Your task to perform on an android device: Open display settings Image 0: 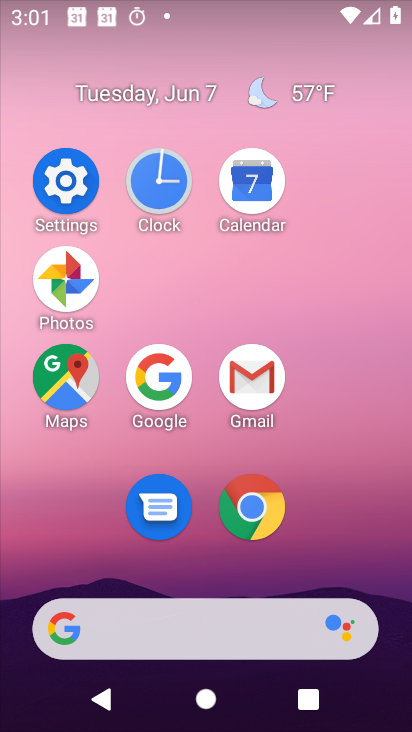
Step 0: click (86, 177)
Your task to perform on an android device: Open display settings Image 1: 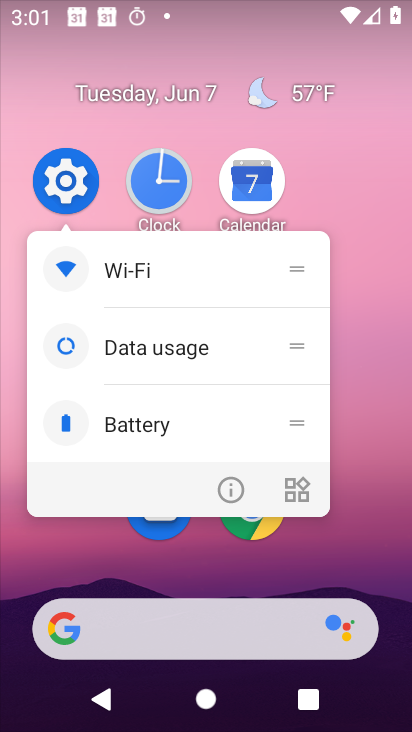
Step 1: click (56, 183)
Your task to perform on an android device: Open display settings Image 2: 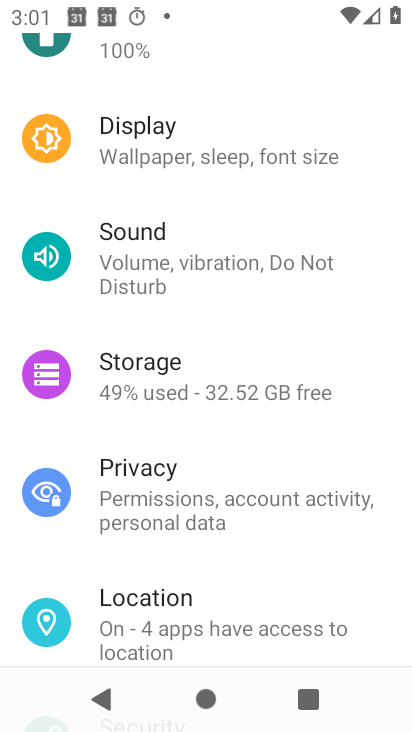
Step 2: click (214, 156)
Your task to perform on an android device: Open display settings Image 3: 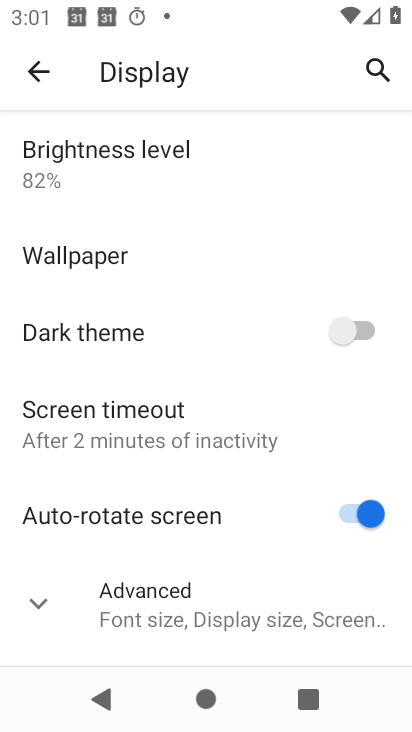
Step 3: task complete